Your task to perform on an android device: turn notification dots on Image 0: 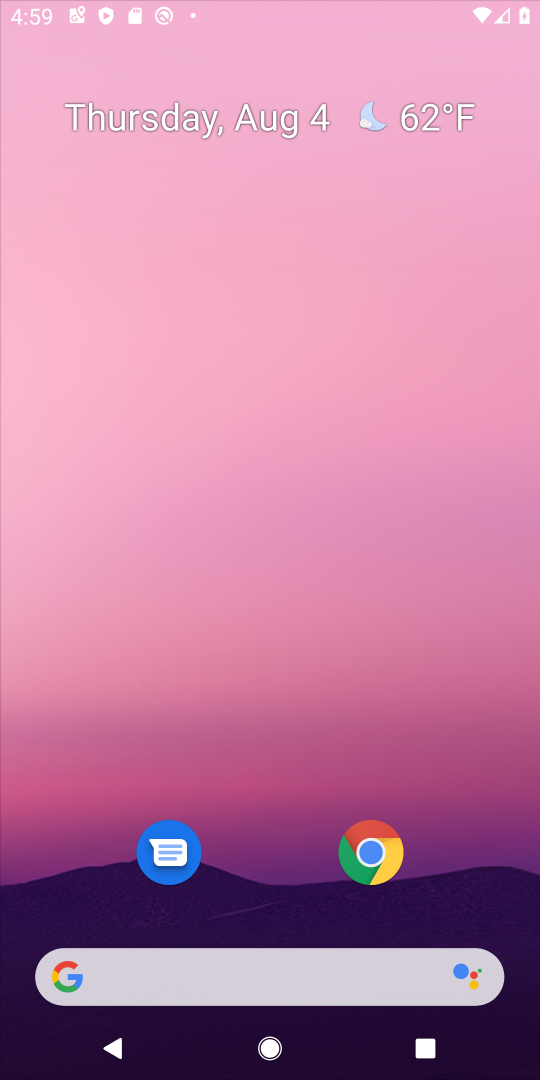
Step 0: press home button
Your task to perform on an android device: turn notification dots on Image 1: 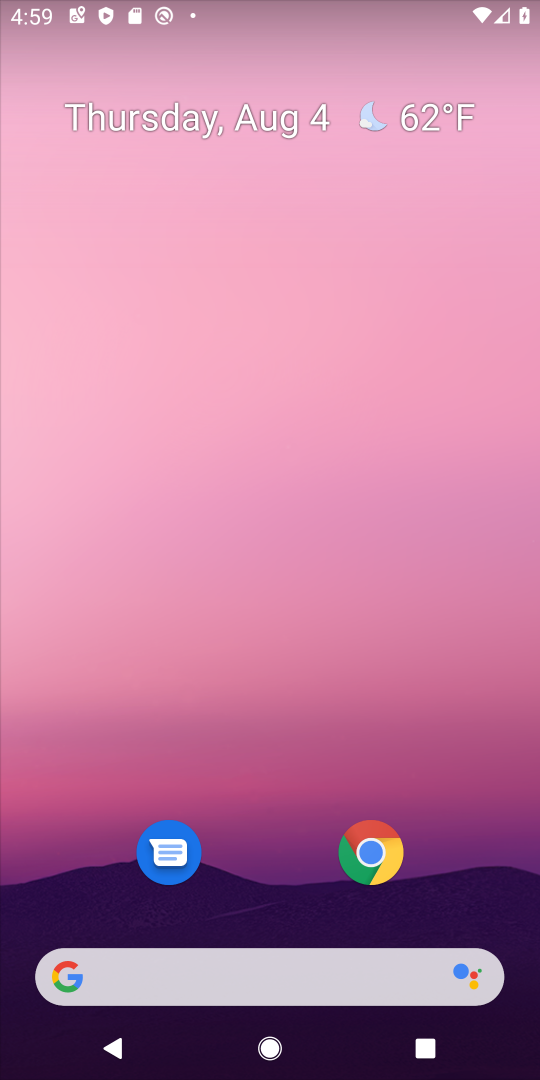
Step 1: drag from (307, 924) to (303, 376)
Your task to perform on an android device: turn notification dots on Image 2: 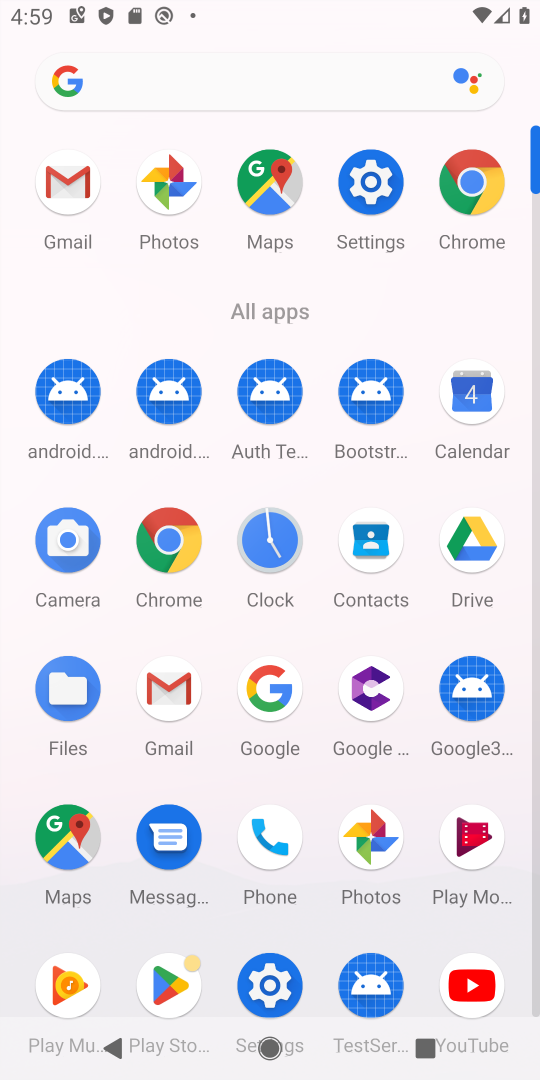
Step 2: click (372, 185)
Your task to perform on an android device: turn notification dots on Image 3: 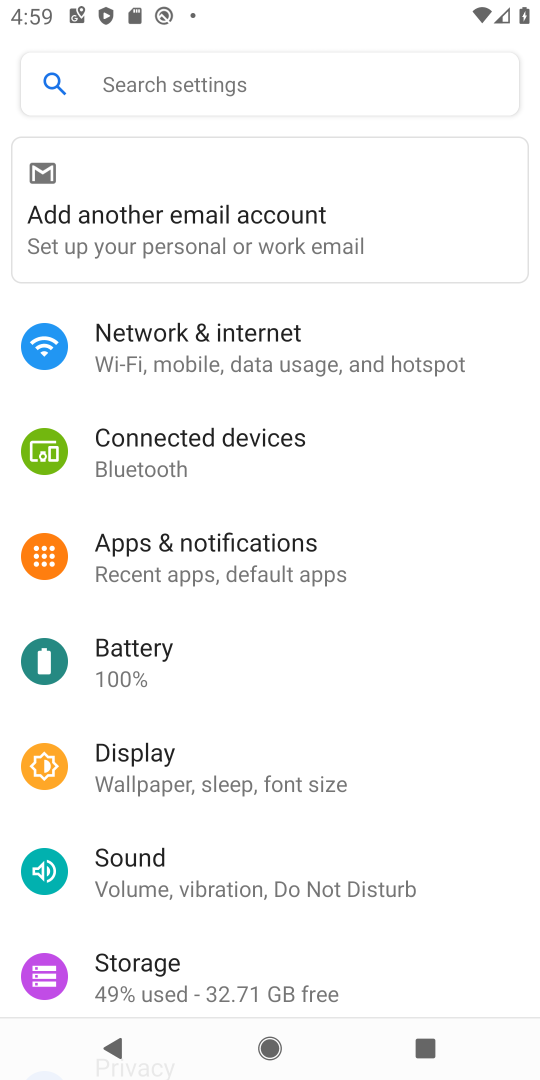
Step 3: click (252, 556)
Your task to perform on an android device: turn notification dots on Image 4: 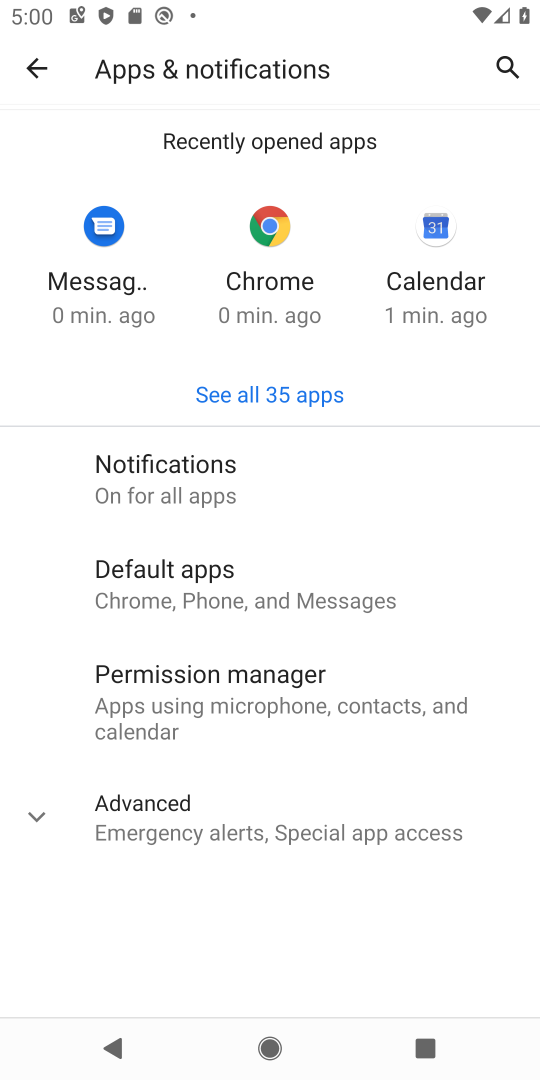
Step 4: click (162, 476)
Your task to perform on an android device: turn notification dots on Image 5: 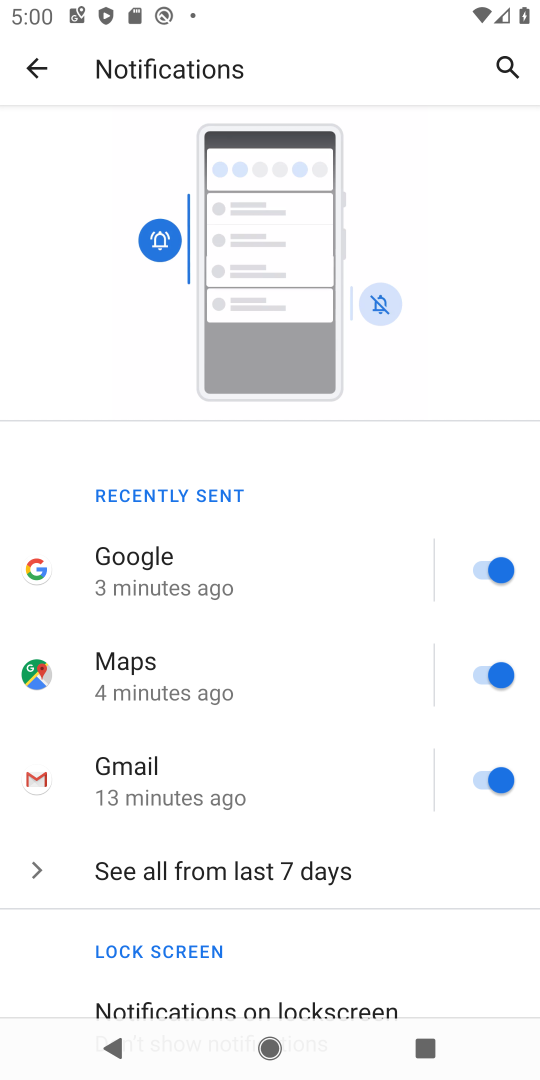
Step 5: drag from (378, 936) to (385, 558)
Your task to perform on an android device: turn notification dots on Image 6: 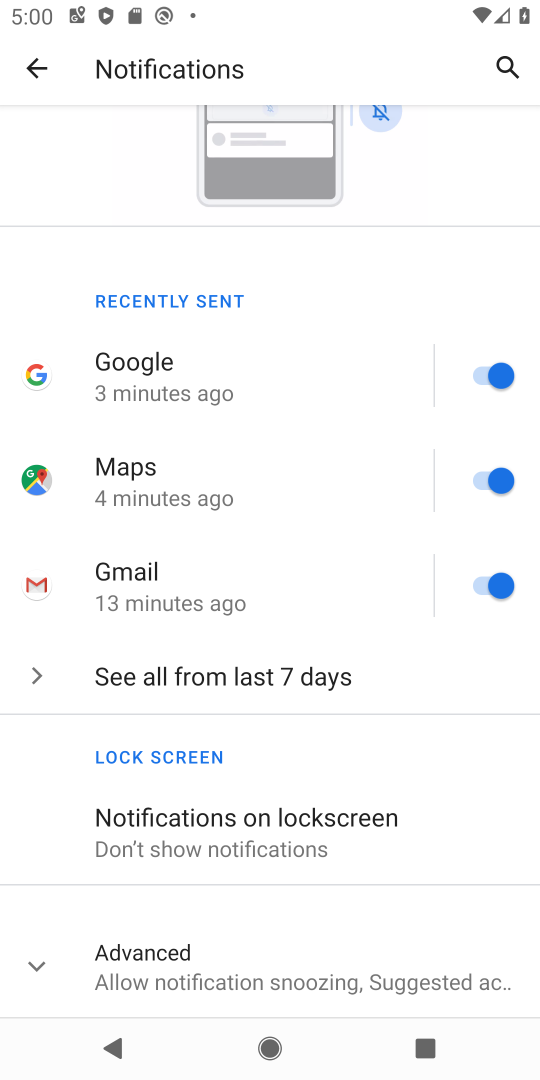
Step 6: click (282, 983)
Your task to perform on an android device: turn notification dots on Image 7: 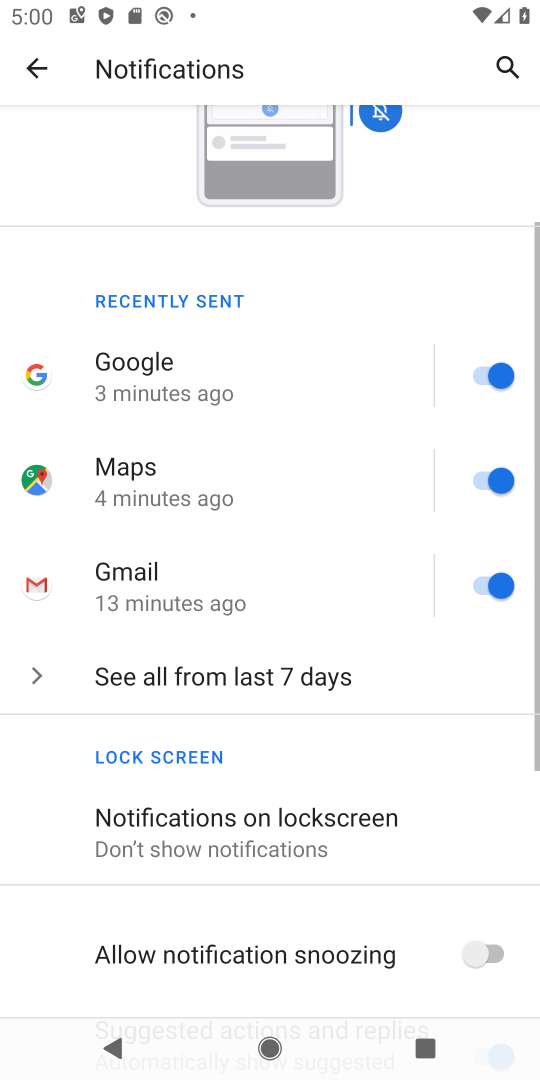
Step 7: task complete